Your task to perform on an android device: Turn on the flashlight Image 0: 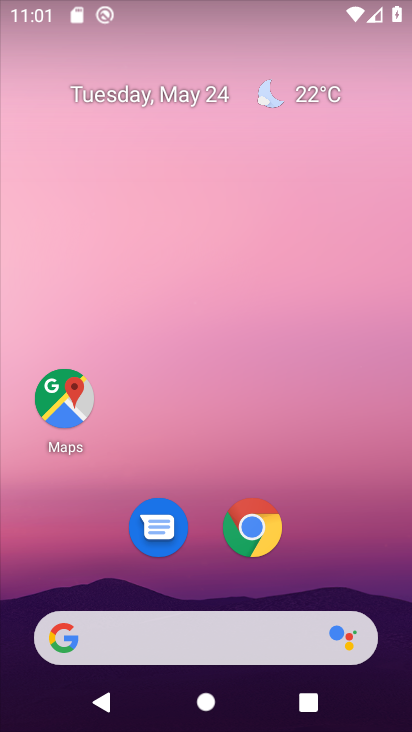
Step 0: press home button
Your task to perform on an android device: Turn on the flashlight Image 1: 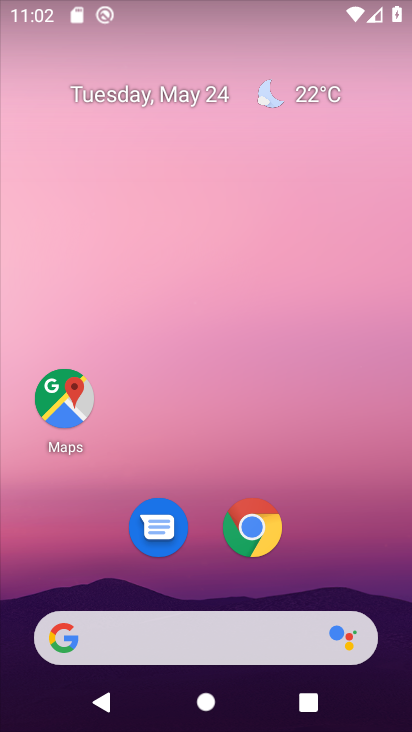
Step 1: task complete